Your task to perform on an android device: see tabs open on other devices in the chrome app Image 0: 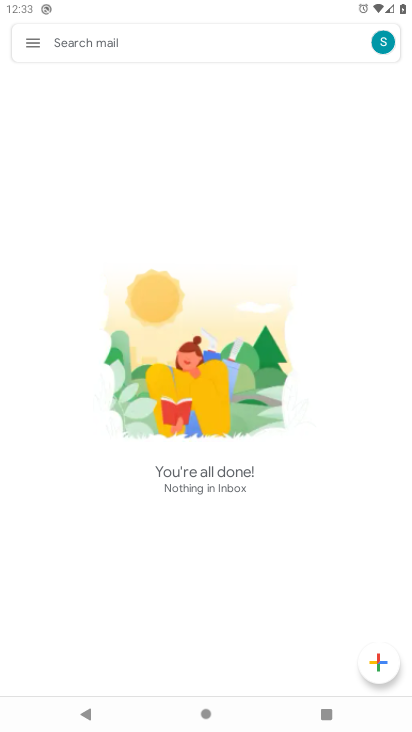
Step 0: press home button
Your task to perform on an android device: see tabs open on other devices in the chrome app Image 1: 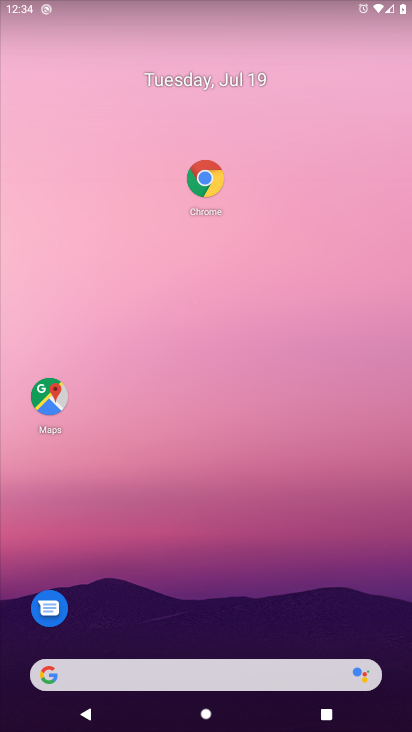
Step 1: click (214, 179)
Your task to perform on an android device: see tabs open on other devices in the chrome app Image 2: 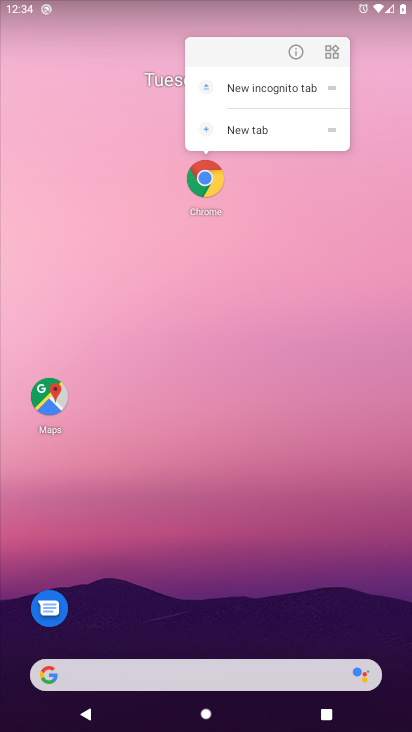
Step 2: click (219, 174)
Your task to perform on an android device: see tabs open on other devices in the chrome app Image 3: 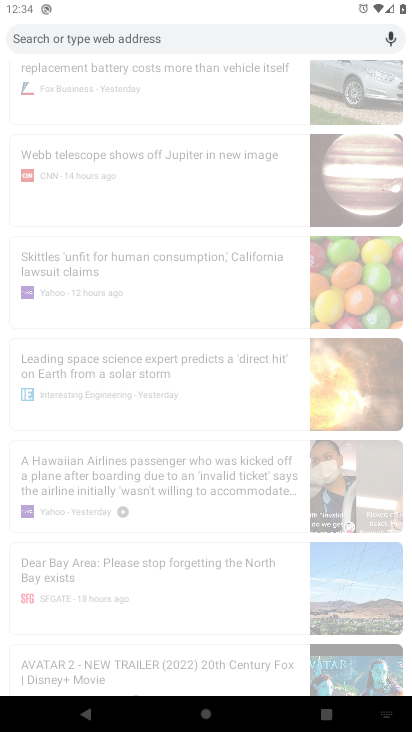
Step 3: task complete